Your task to perform on an android device: Show me recent news Image 0: 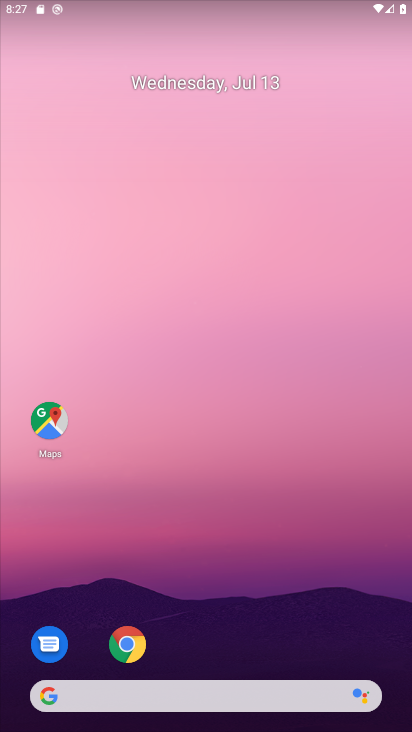
Step 0: click (292, 696)
Your task to perform on an android device: Show me recent news Image 1: 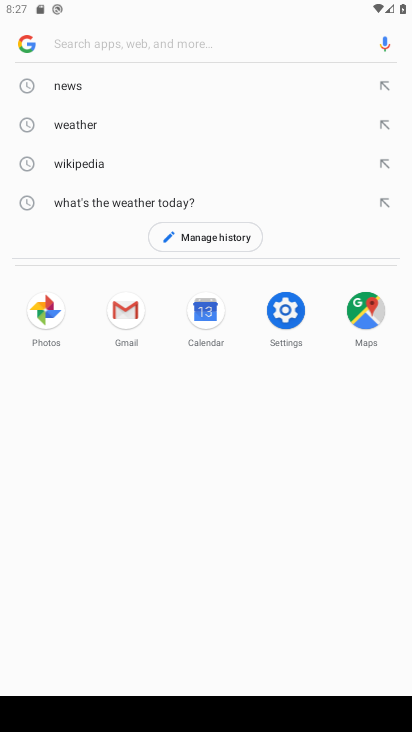
Step 1: click (292, 696)
Your task to perform on an android device: Show me recent news Image 2: 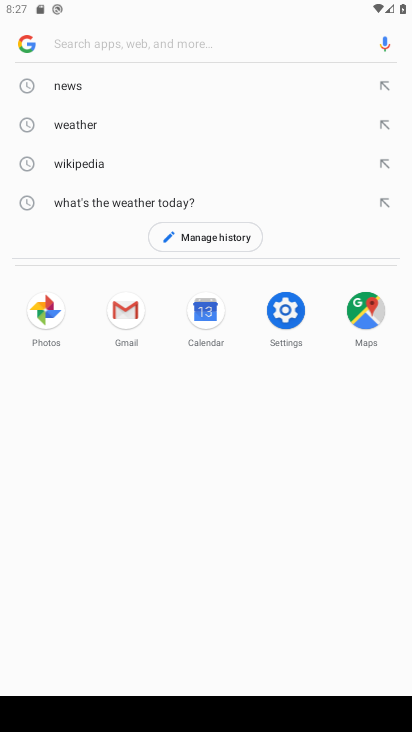
Step 2: type "recent news"
Your task to perform on an android device: Show me recent news Image 3: 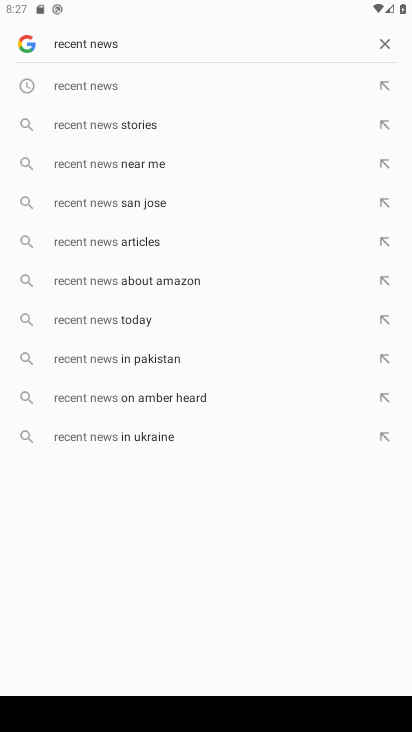
Step 3: click (157, 87)
Your task to perform on an android device: Show me recent news Image 4: 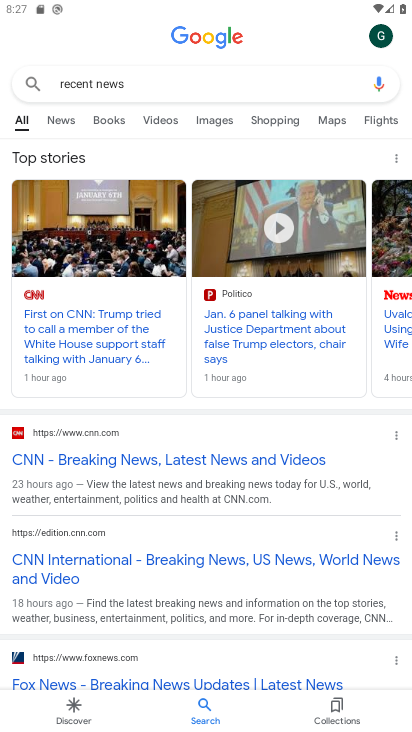
Step 4: click (65, 112)
Your task to perform on an android device: Show me recent news Image 5: 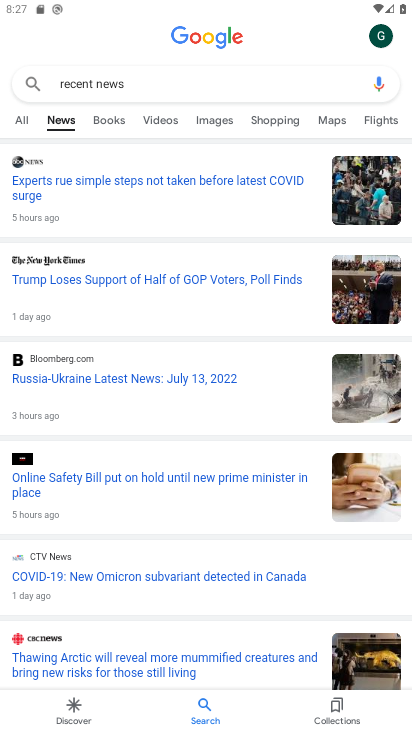
Step 5: task complete